Your task to perform on an android device: change the clock display to show seconds Image 0: 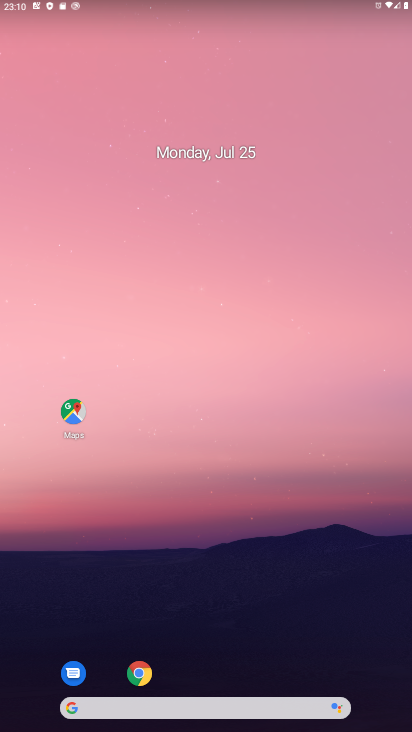
Step 0: drag from (246, 660) to (252, 52)
Your task to perform on an android device: change the clock display to show seconds Image 1: 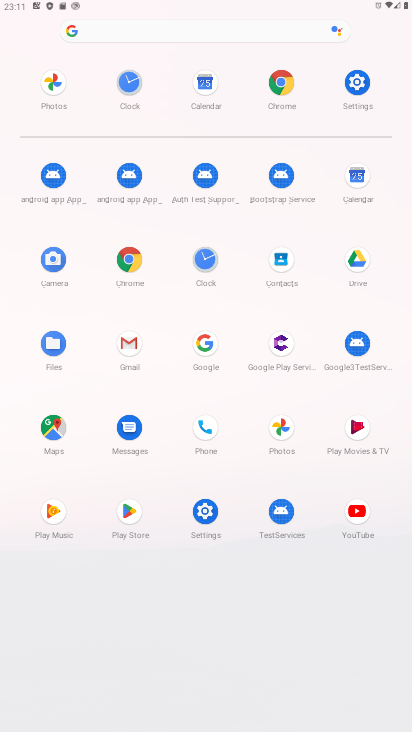
Step 1: click (206, 258)
Your task to perform on an android device: change the clock display to show seconds Image 2: 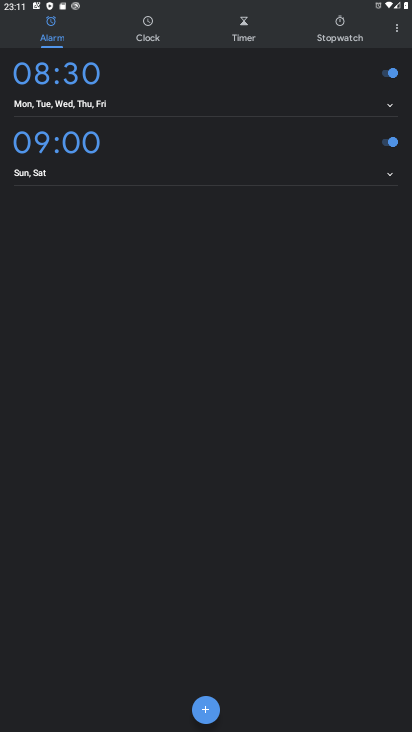
Step 2: click (391, 31)
Your task to perform on an android device: change the clock display to show seconds Image 3: 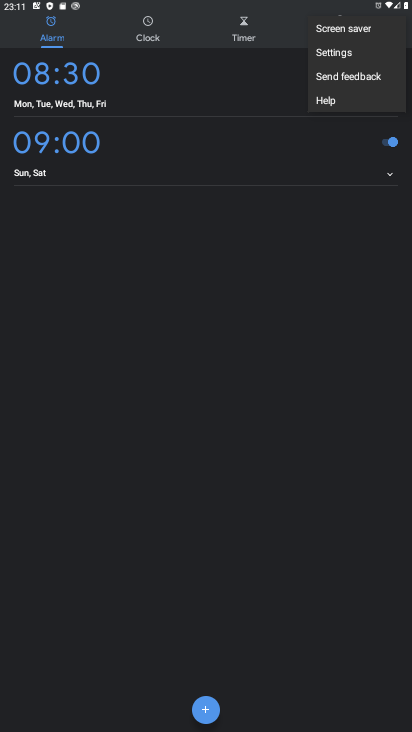
Step 3: click (344, 46)
Your task to perform on an android device: change the clock display to show seconds Image 4: 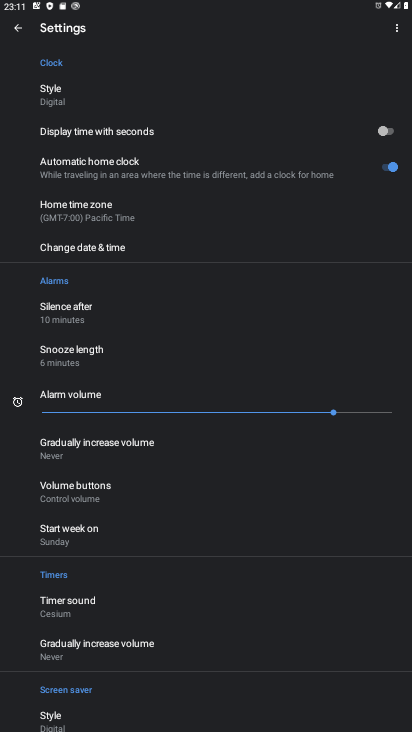
Step 4: click (385, 120)
Your task to perform on an android device: change the clock display to show seconds Image 5: 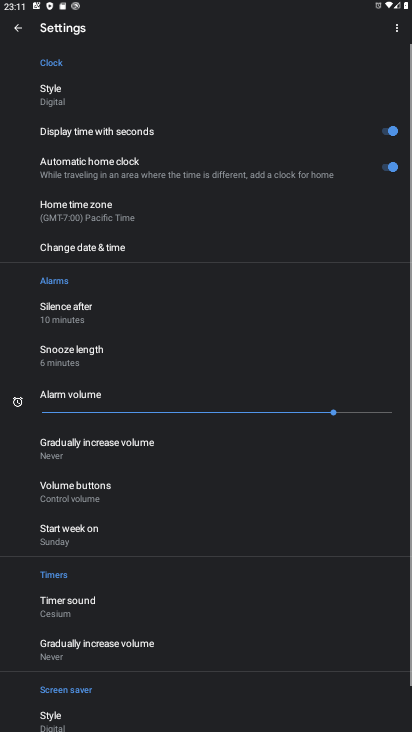
Step 5: task complete